Your task to perform on an android device: open sync settings in chrome Image 0: 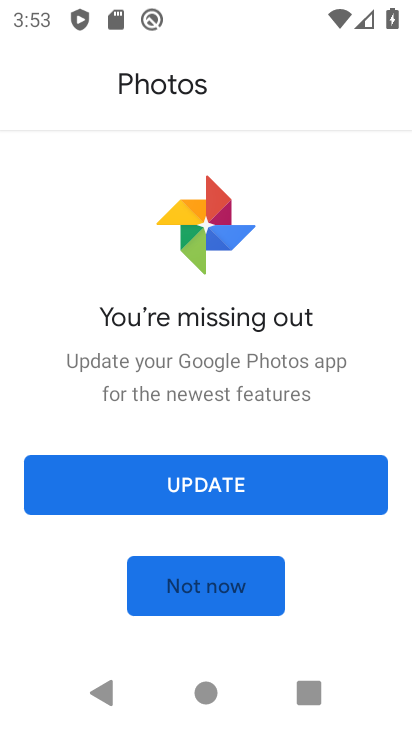
Step 0: press home button
Your task to perform on an android device: open sync settings in chrome Image 1: 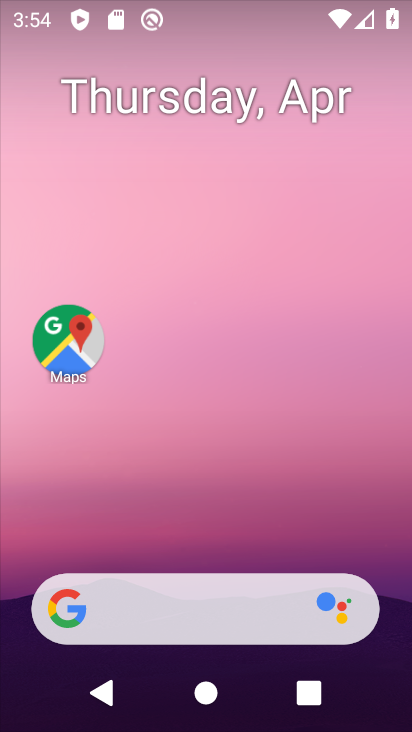
Step 1: drag from (211, 715) to (213, 127)
Your task to perform on an android device: open sync settings in chrome Image 2: 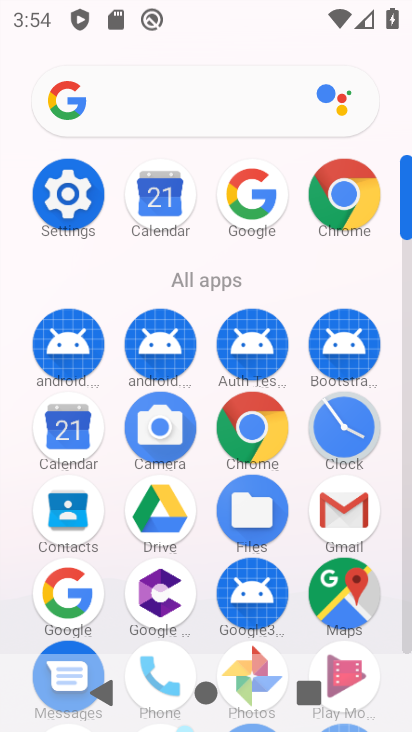
Step 2: click (340, 197)
Your task to perform on an android device: open sync settings in chrome Image 3: 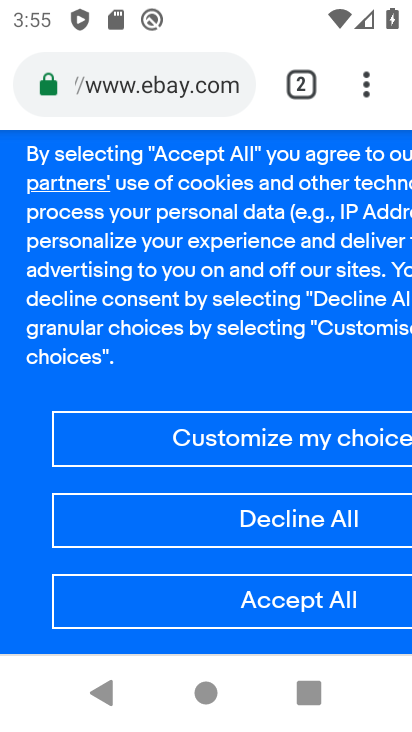
Step 3: drag from (363, 86) to (163, 497)
Your task to perform on an android device: open sync settings in chrome Image 4: 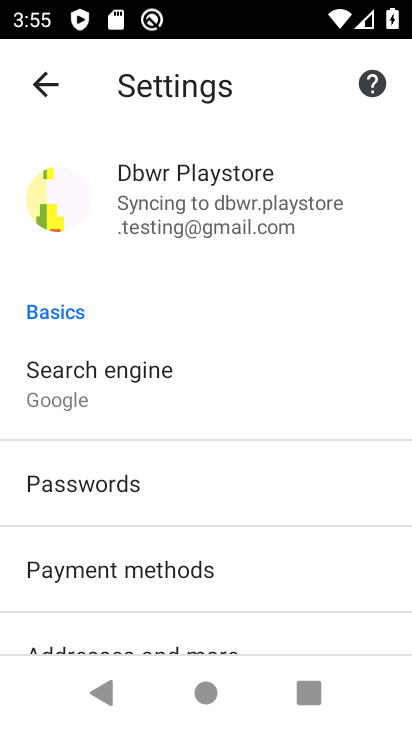
Step 4: drag from (149, 635) to (178, 292)
Your task to perform on an android device: open sync settings in chrome Image 5: 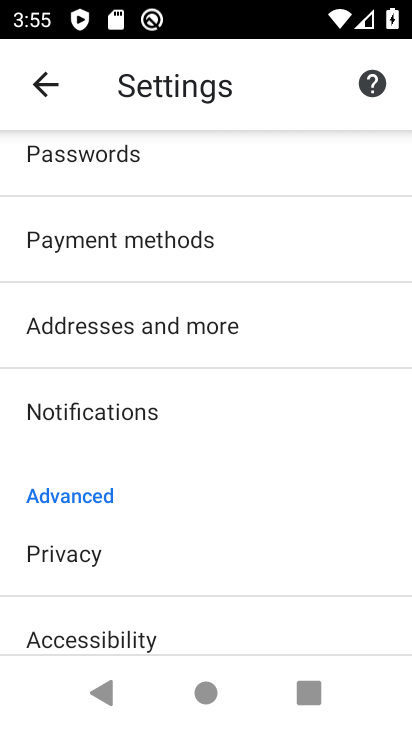
Step 5: drag from (187, 631) to (234, 248)
Your task to perform on an android device: open sync settings in chrome Image 6: 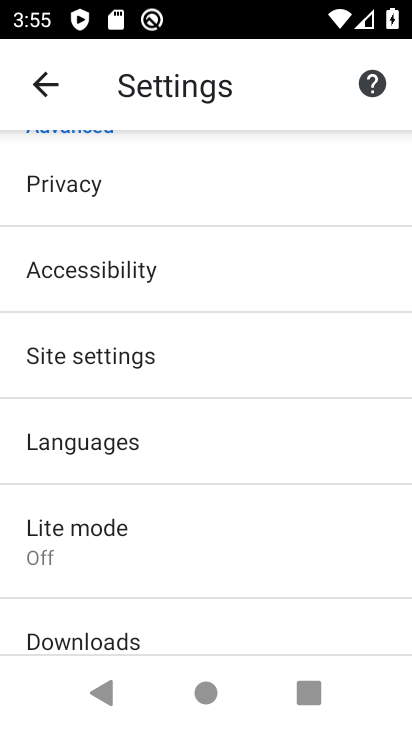
Step 6: click (100, 355)
Your task to perform on an android device: open sync settings in chrome Image 7: 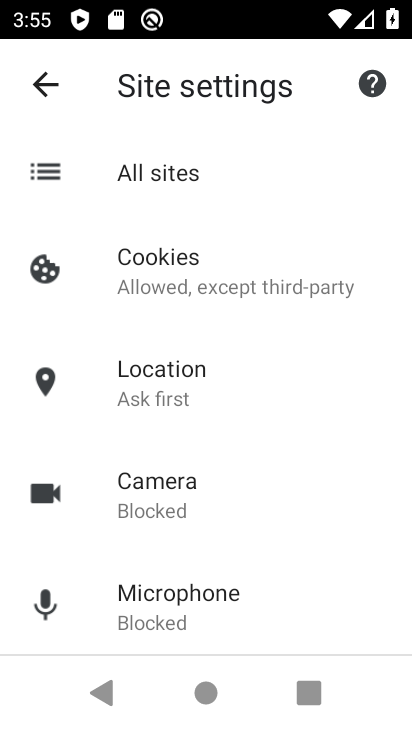
Step 7: drag from (173, 628) to (220, 216)
Your task to perform on an android device: open sync settings in chrome Image 8: 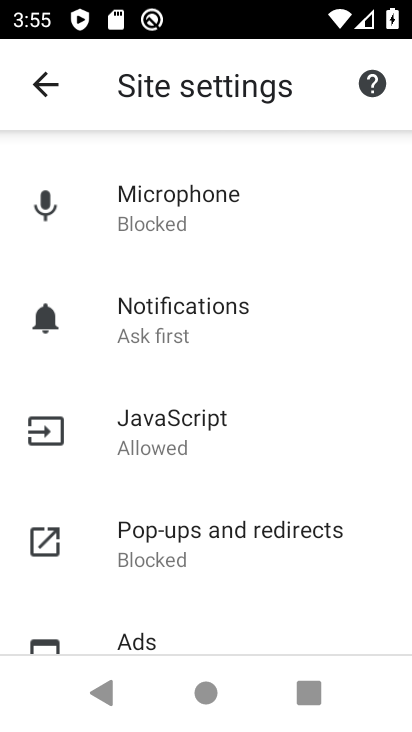
Step 8: drag from (185, 629) to (212, 226)
Your task to perform on an android device: open sync settings in chrome Image 9: 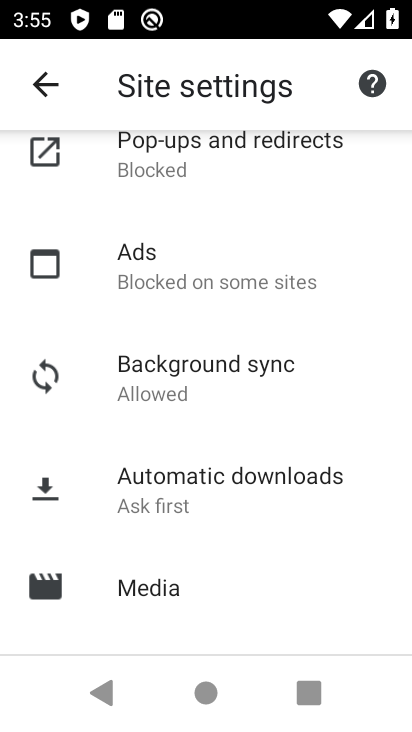
Step 9: click (157, 374)
Your task to perform on an android device: open sync settings in chrome Image 10: 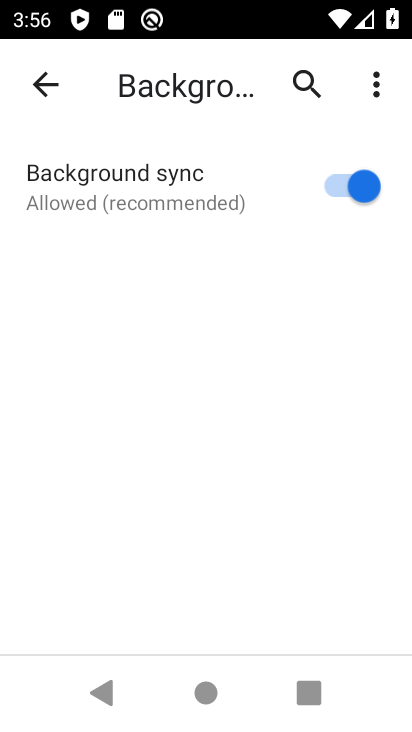
Step 10: task complete